Your task to perform on an android device: Open the stopwatch Image 0: 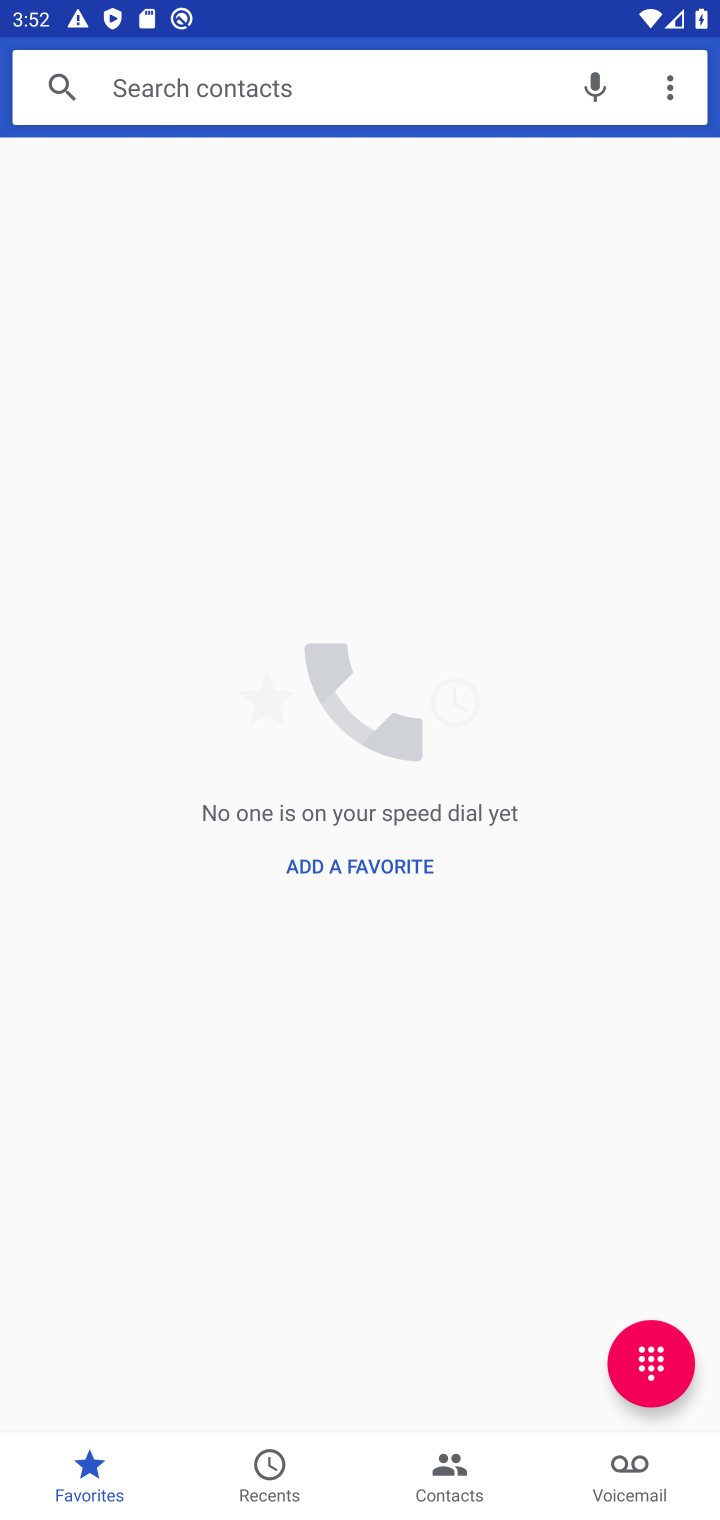
Step 0: task complete